Your task to perform on an android device: Show me recent news Image 0: 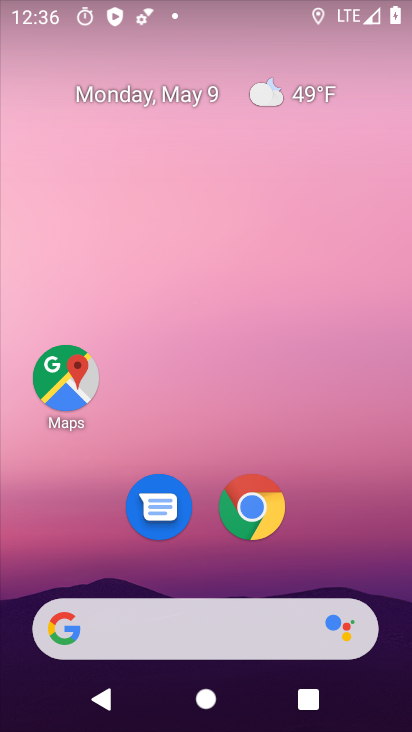
Step 0: drag from (240, 725) to (229, 310)
Your task to perform on an android device: Show me recent news Image 1: 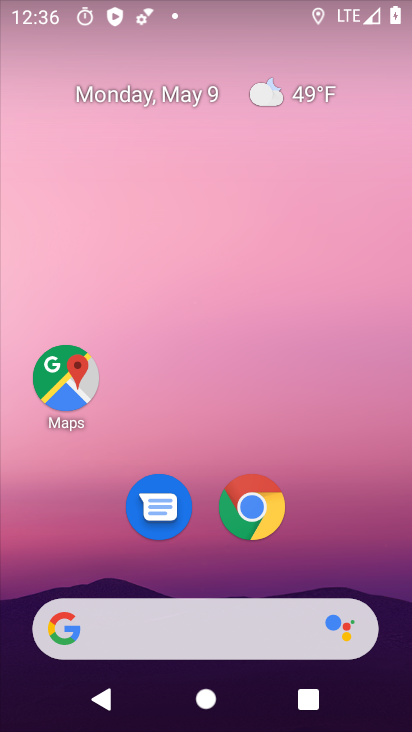
Step 1: task complete